Your task to perform on an android device: change text size in settings app Image 0: 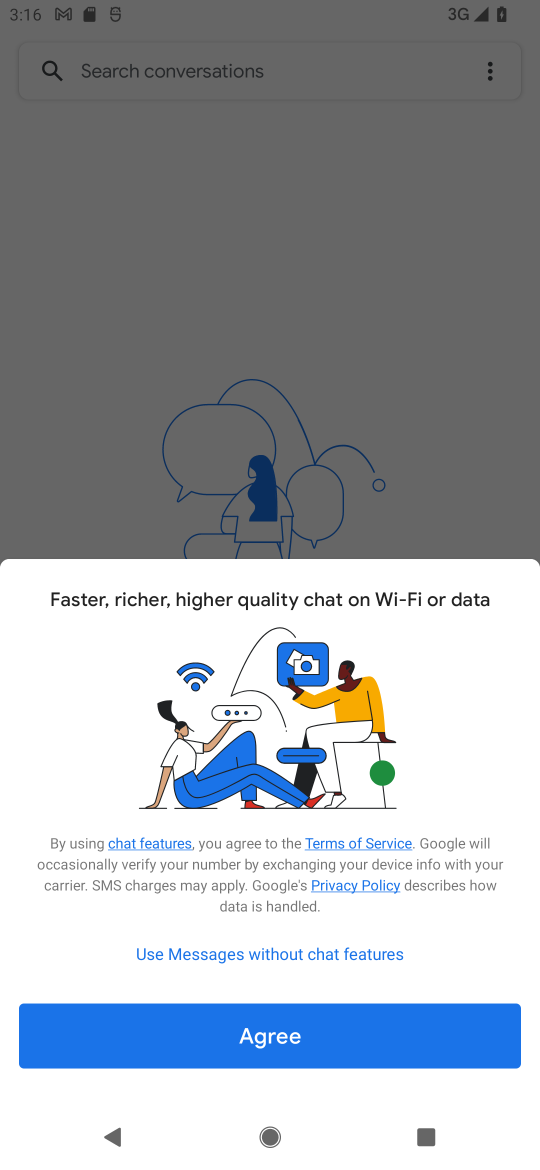
Step 0: press home button
Your task to perform on an android device: change text size in settings app Image 1: 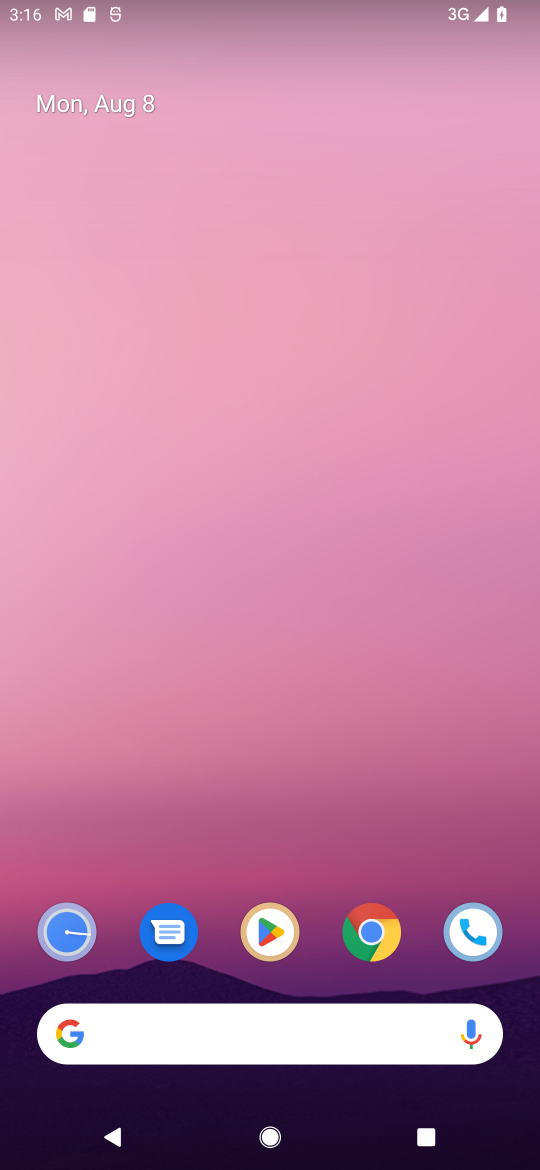
Step 1: drag from (292, 956) to (297, 57)
Your task to perform on an android device: change text size in settings app Image 2: 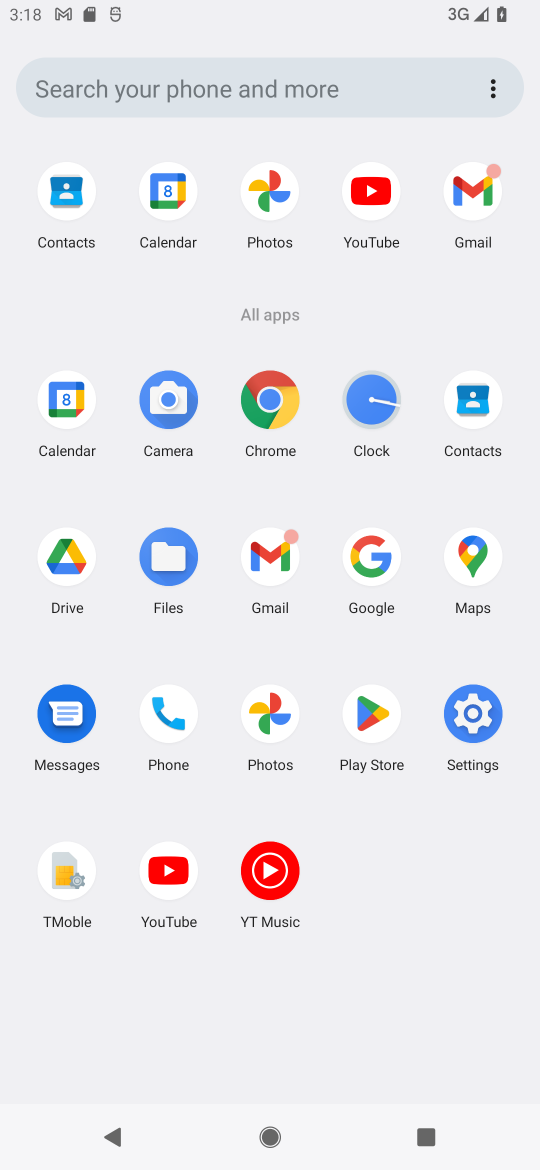
Step 2: click (471, 720)
Your task to perform on an android device: change text size in settings app Image 3: 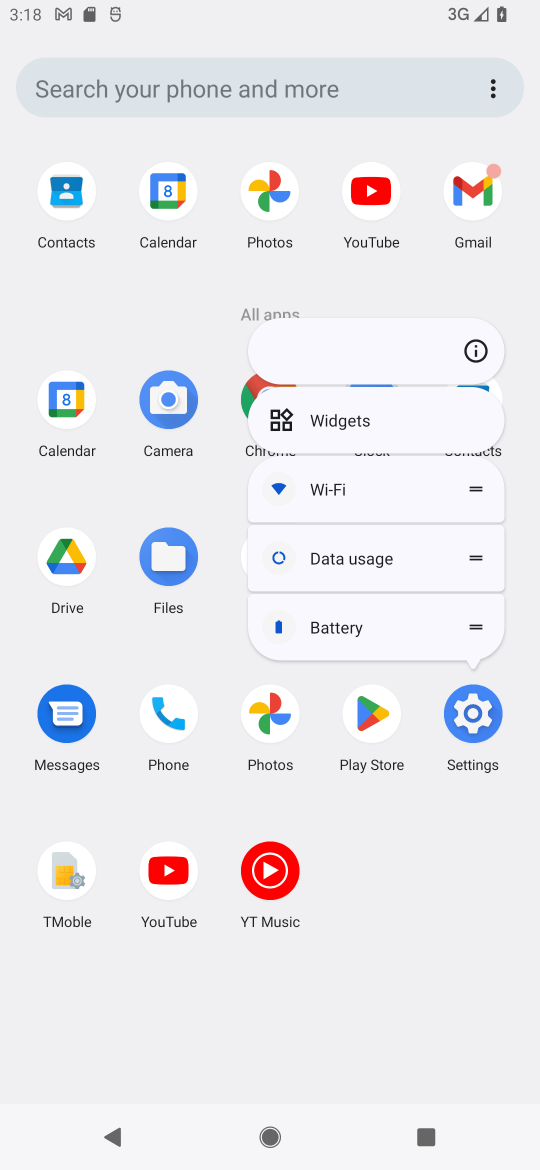
Step 3: click (465, 714)
Your task to perform on an android device: change text size in settings app Image 4: 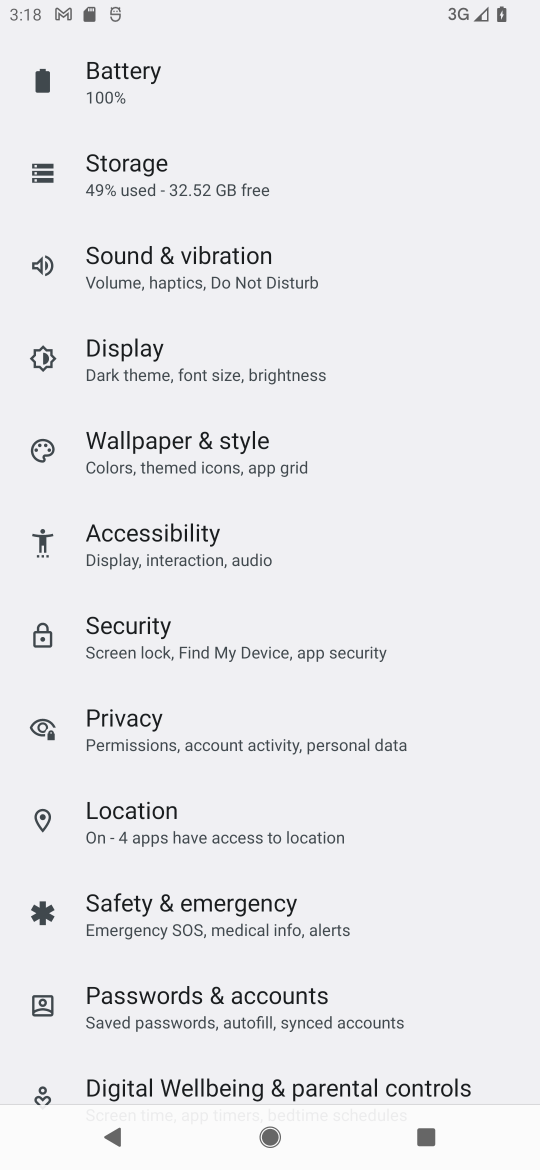
Step 4: drag from (203, 620) to (225, 908)
Your task to perform on an android device: change text size in settings app Image 5: 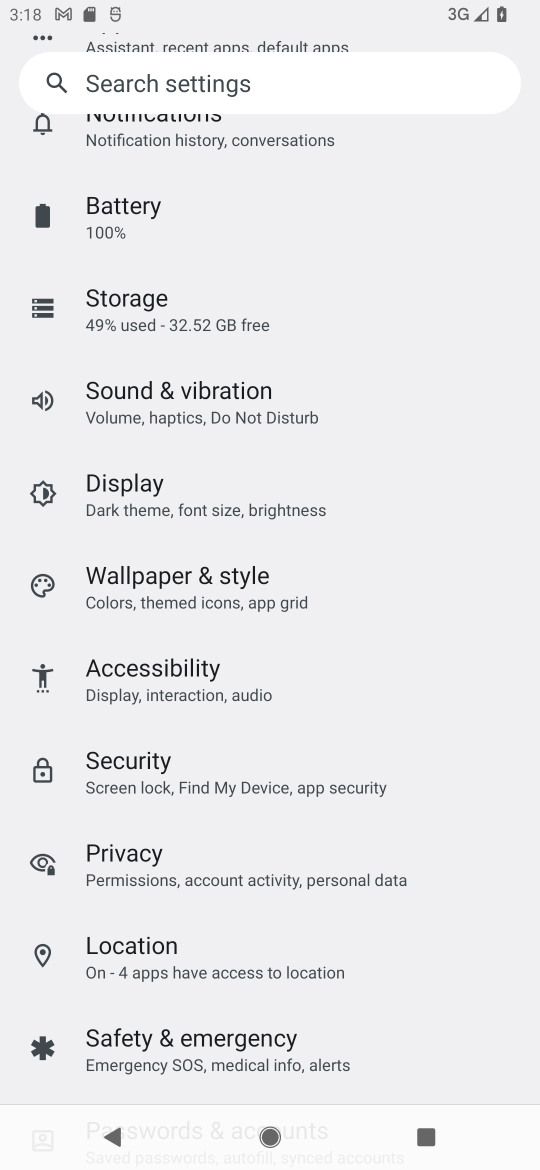
Step 5: click (236, 515)
Your task to perform on an android device: change text size in settings app Image 6: 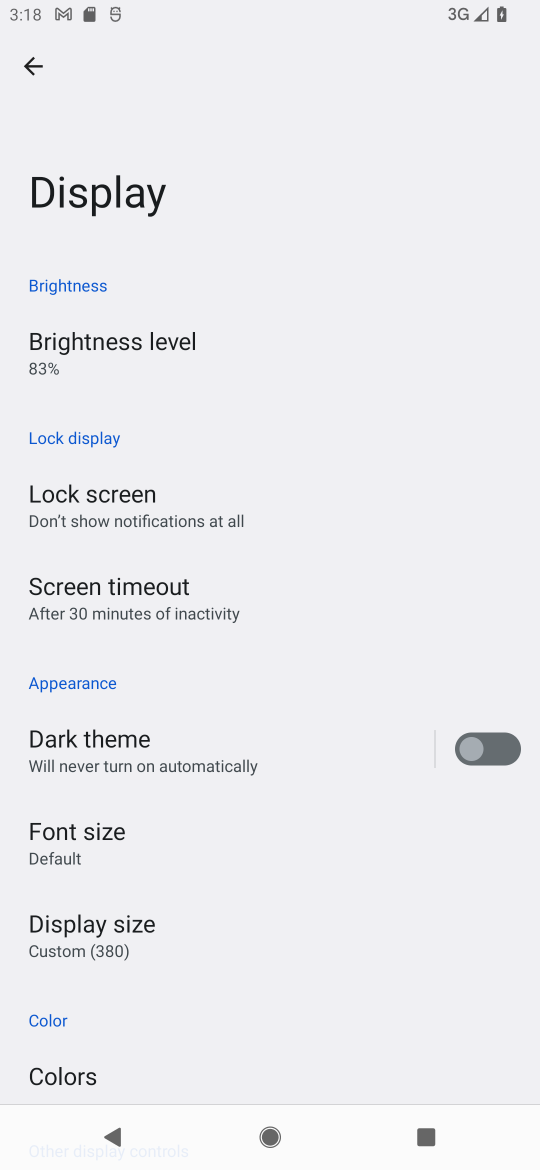
Step 6: click (44, 856)
Your task to perform on an android device: change text size in settings app Image 7: 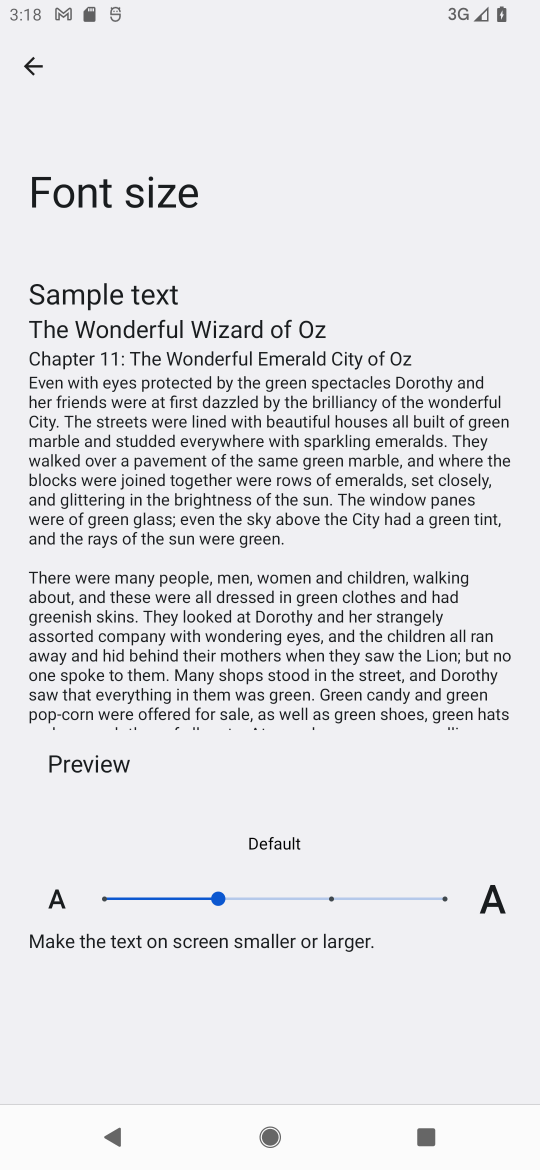
Step 7: click (293, 894)
Your task to perform on an android device: change text size in settings app Image 8: 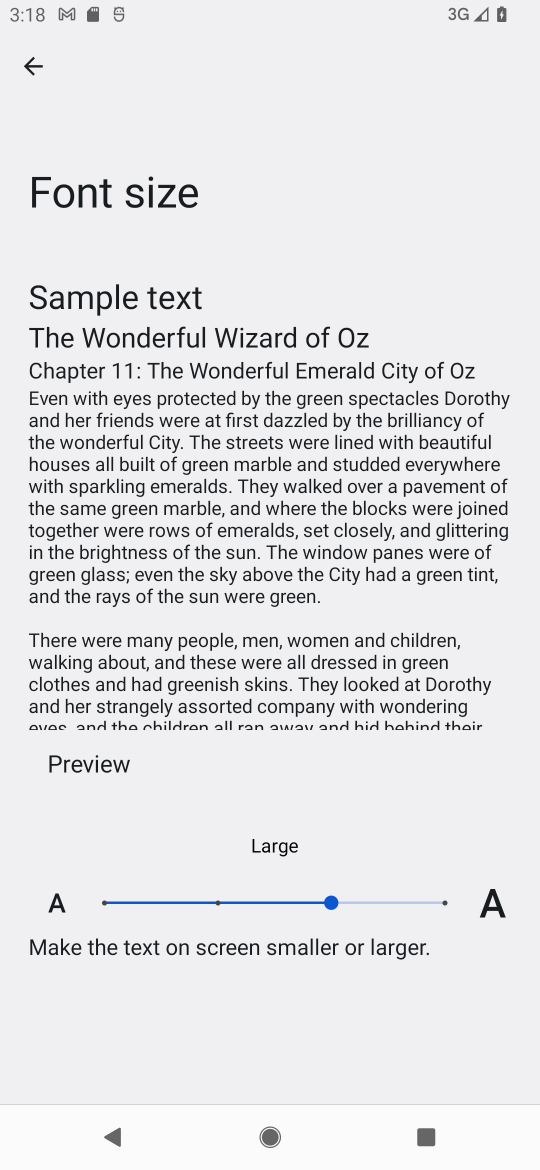
Step 8: task complete